Your task to perform on an android device: Show the shopping cart on amazon. Search for "usb-c" on amazon, select the first entry, and add it to the cart. Image 0: 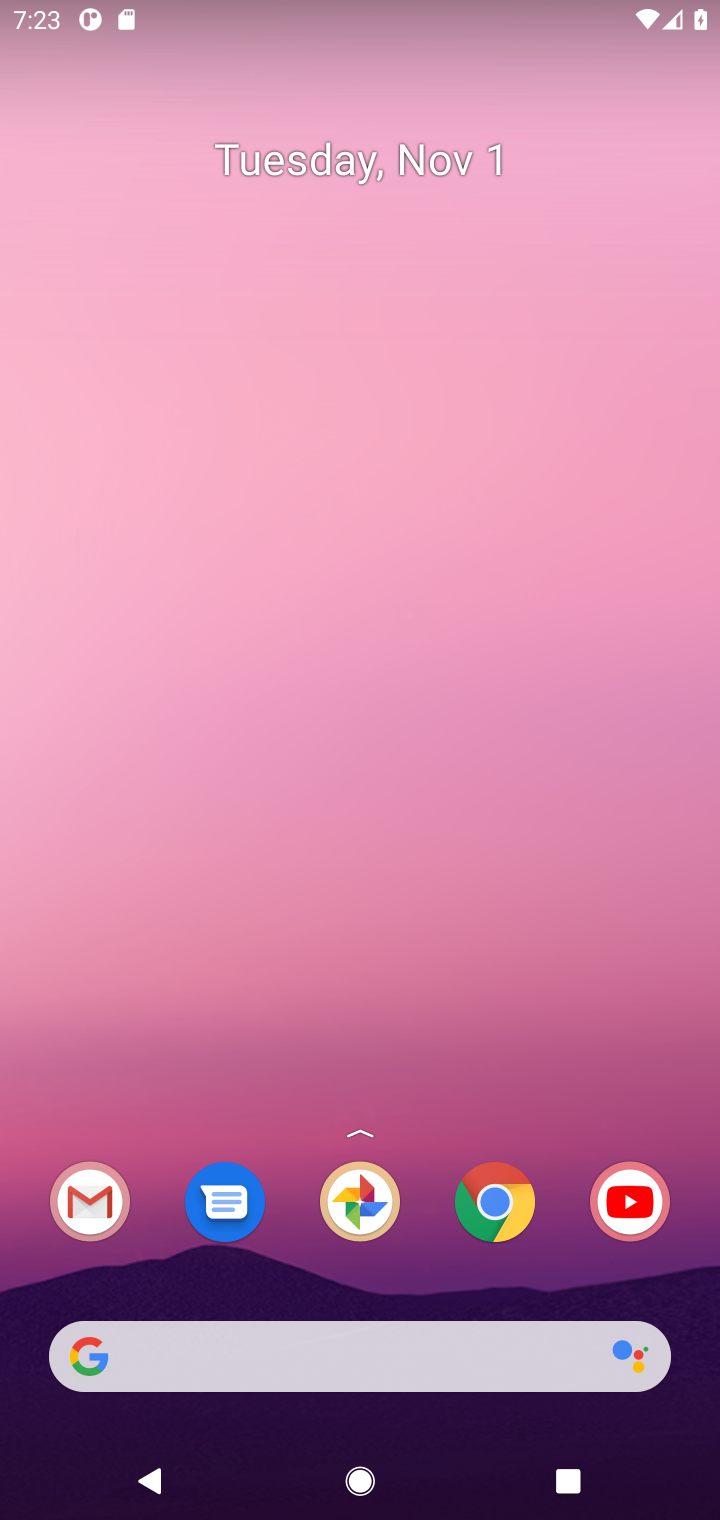
Step 0: drag from (404, 1433) to (350, 79)
Your task to perform on an android device: Show the shopping cart on amazon. Search for "usb-c" on amazon, select the first entry, and add it to the cart. Image 1: 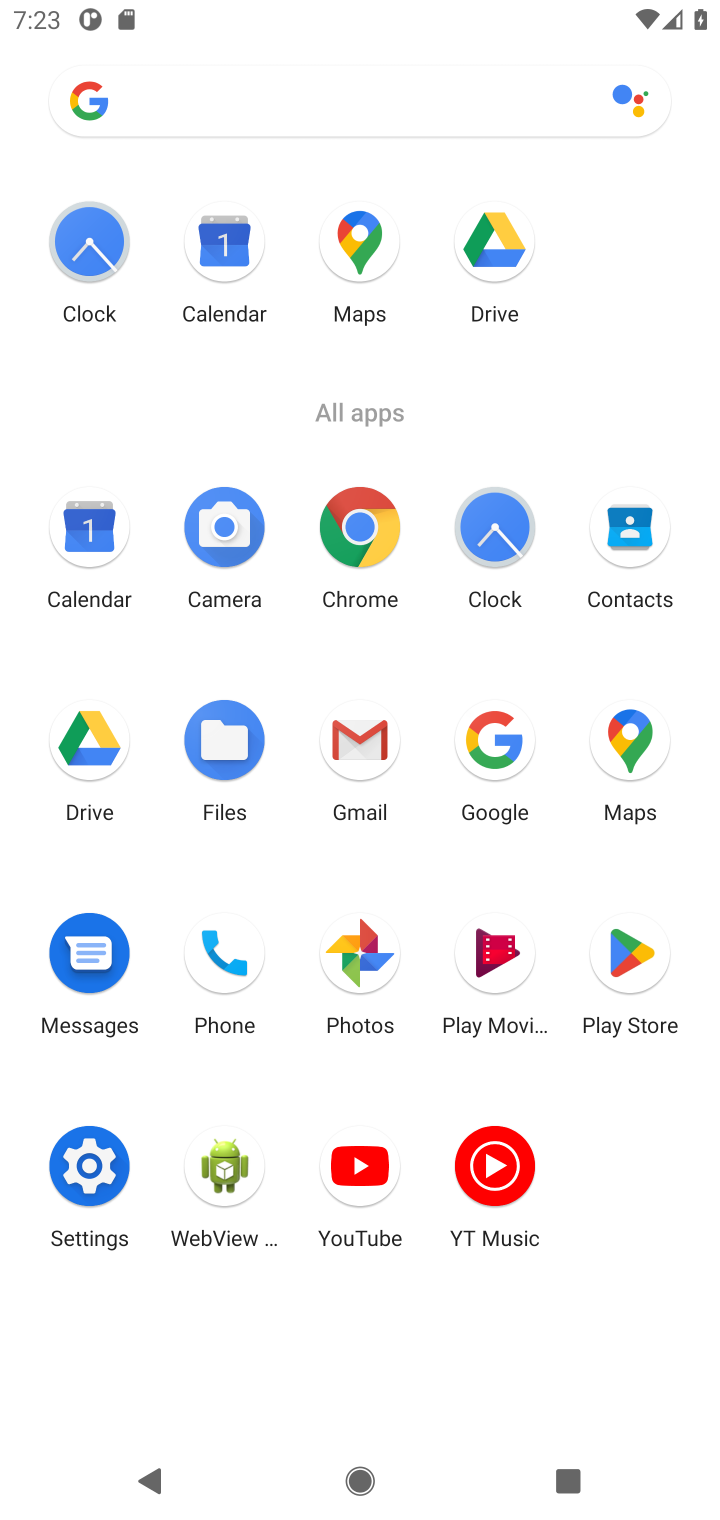
Step 1: click (347, 520)
Your task to perform on an android device: Show the shopping cart on amazon. Search for "usb-c" on amazon, select the first entry, and add it to the cart. Image 2: 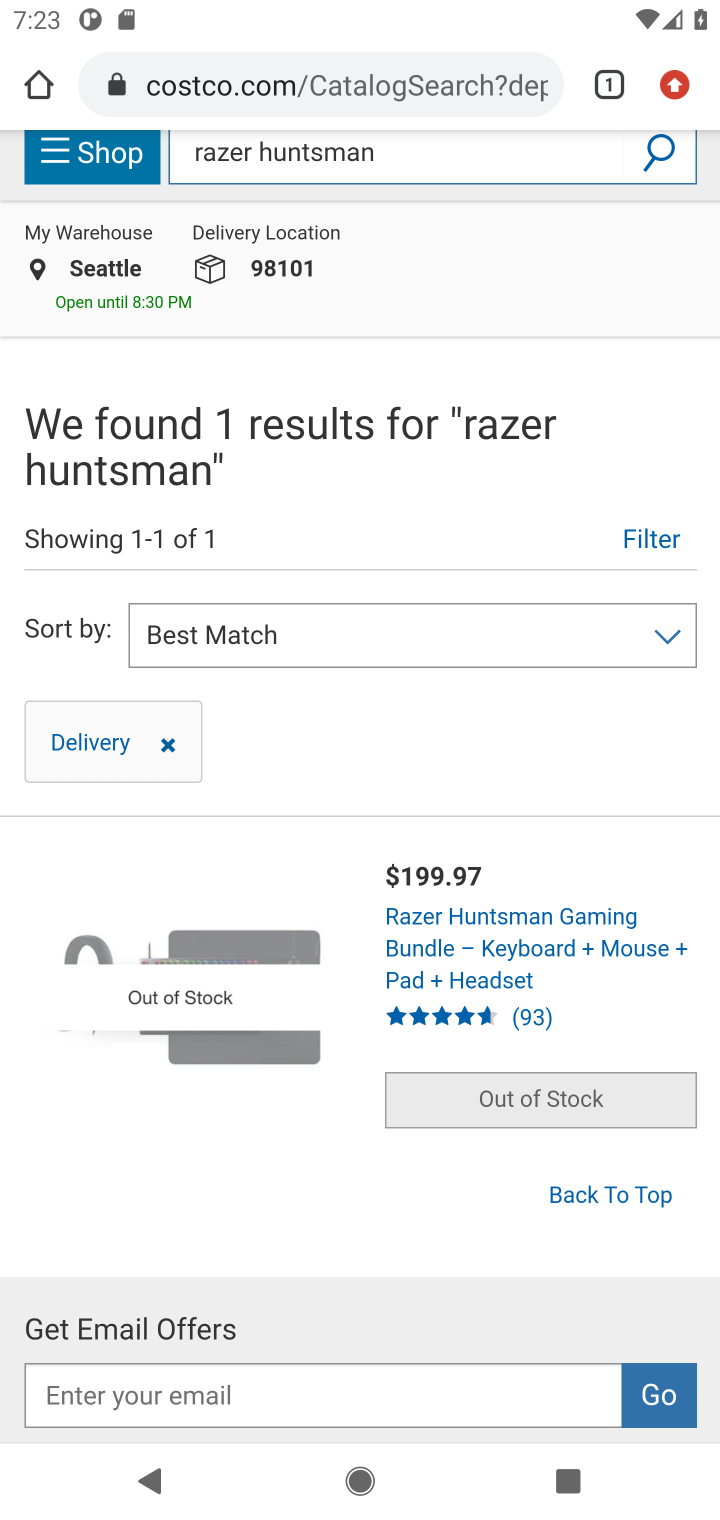
Step 2: click (275, 92)
Your task to perform on an android device: Show the shopping cart on amazon. Search for "usb-c" on amazon, select the first entry, and add it to the cart. Image 3: 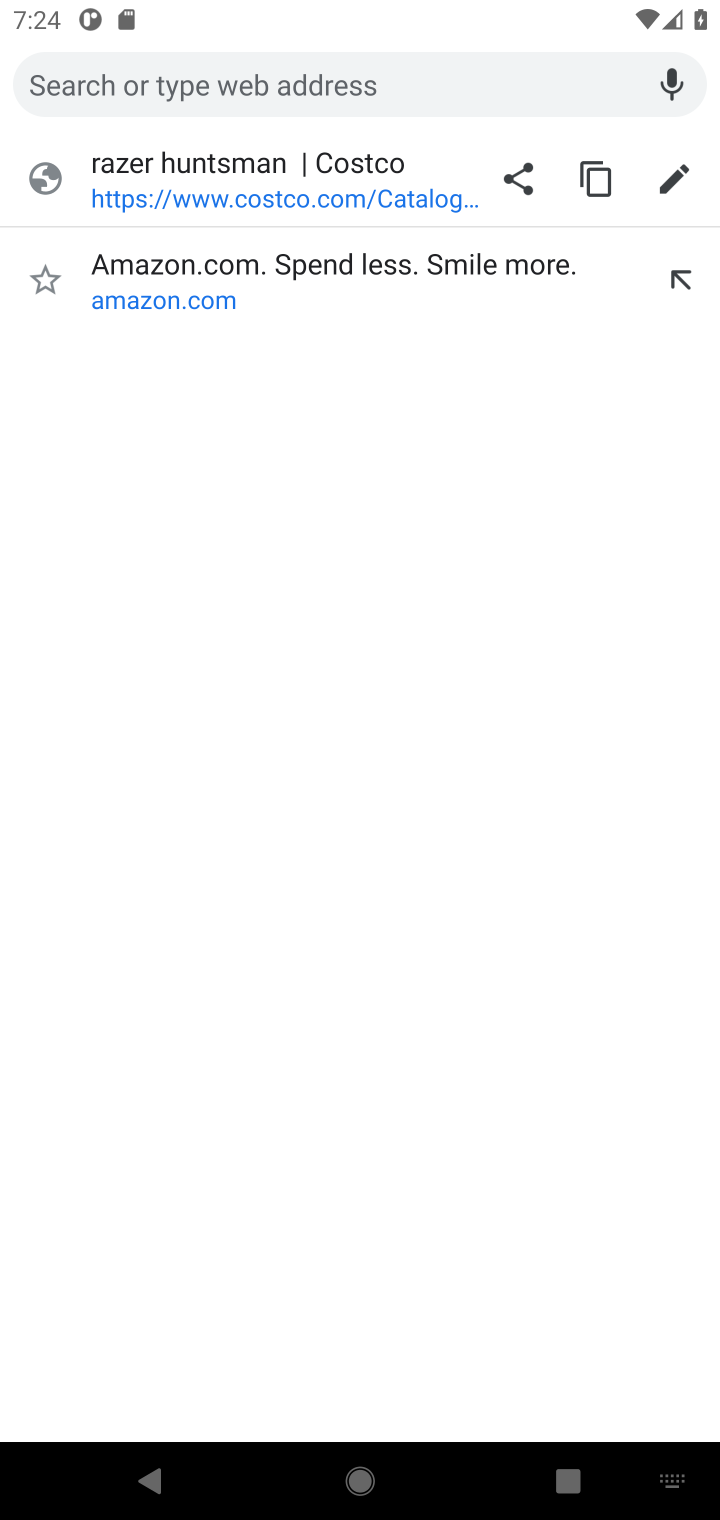
Step 3: type " amazon"
Your task to perform on an android device: Show the shopping cart on amazon. Search for "usb-c" on amazon, select the first entry, and add it to the cart. Image 4: 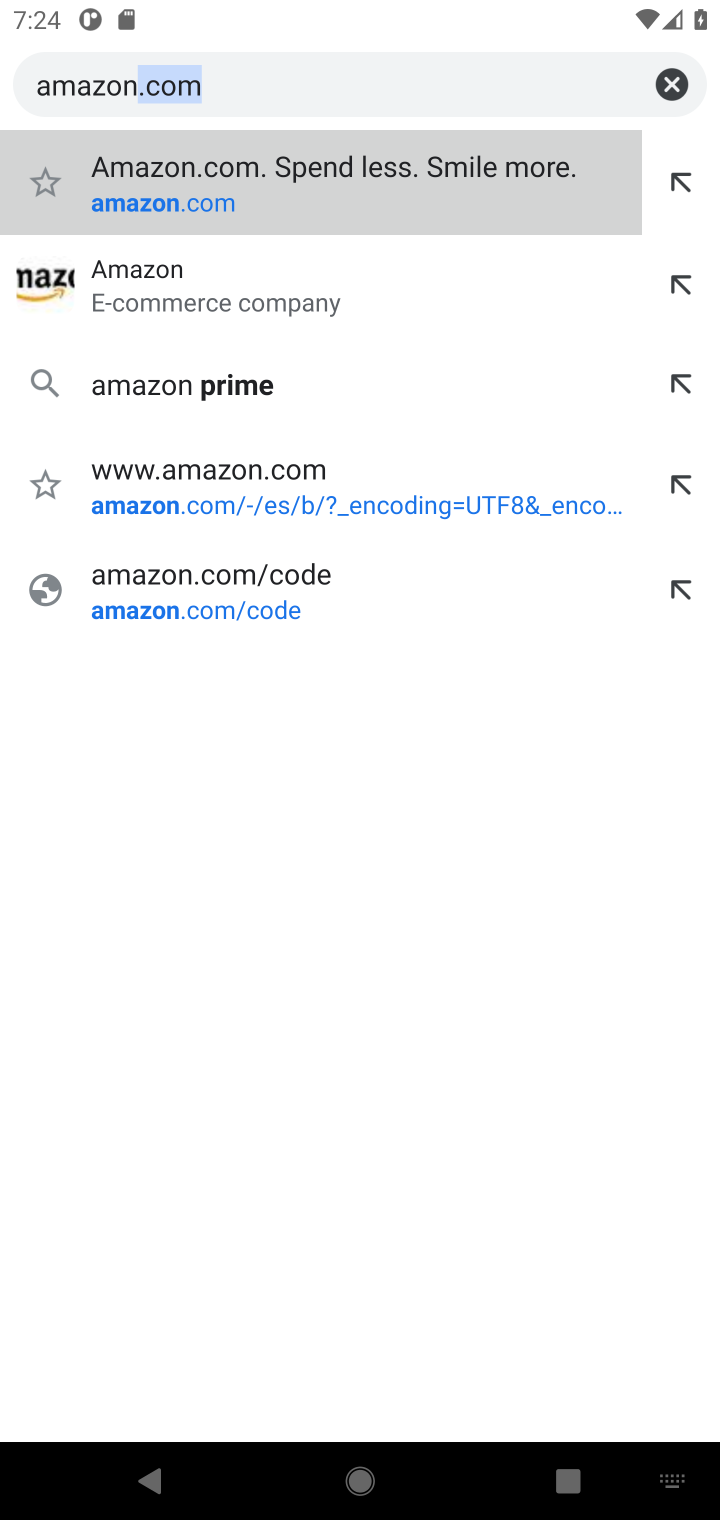
Step 4: click (150, 192)
Your task to perform on an android device: Show the shopping cart on amazon. Search for "usb-c" on amazon, select the first entry, and add it to the cart. Image 5: 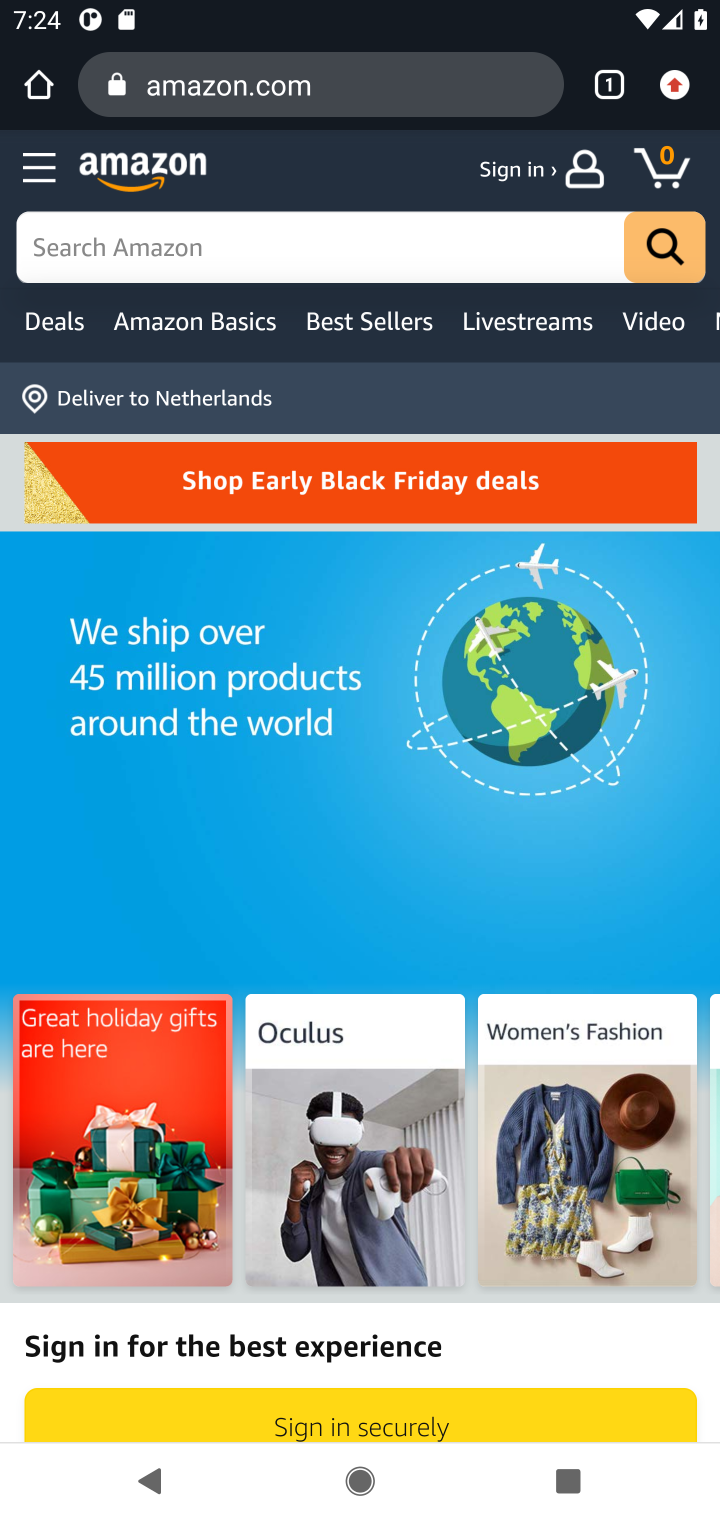
Step 5: click (158, 246)
Your task to perform on an android device: Show the shopping cart on amazon. Search for "usb-c" on amazon, select the first entry, and add it to the cart. Image 6: 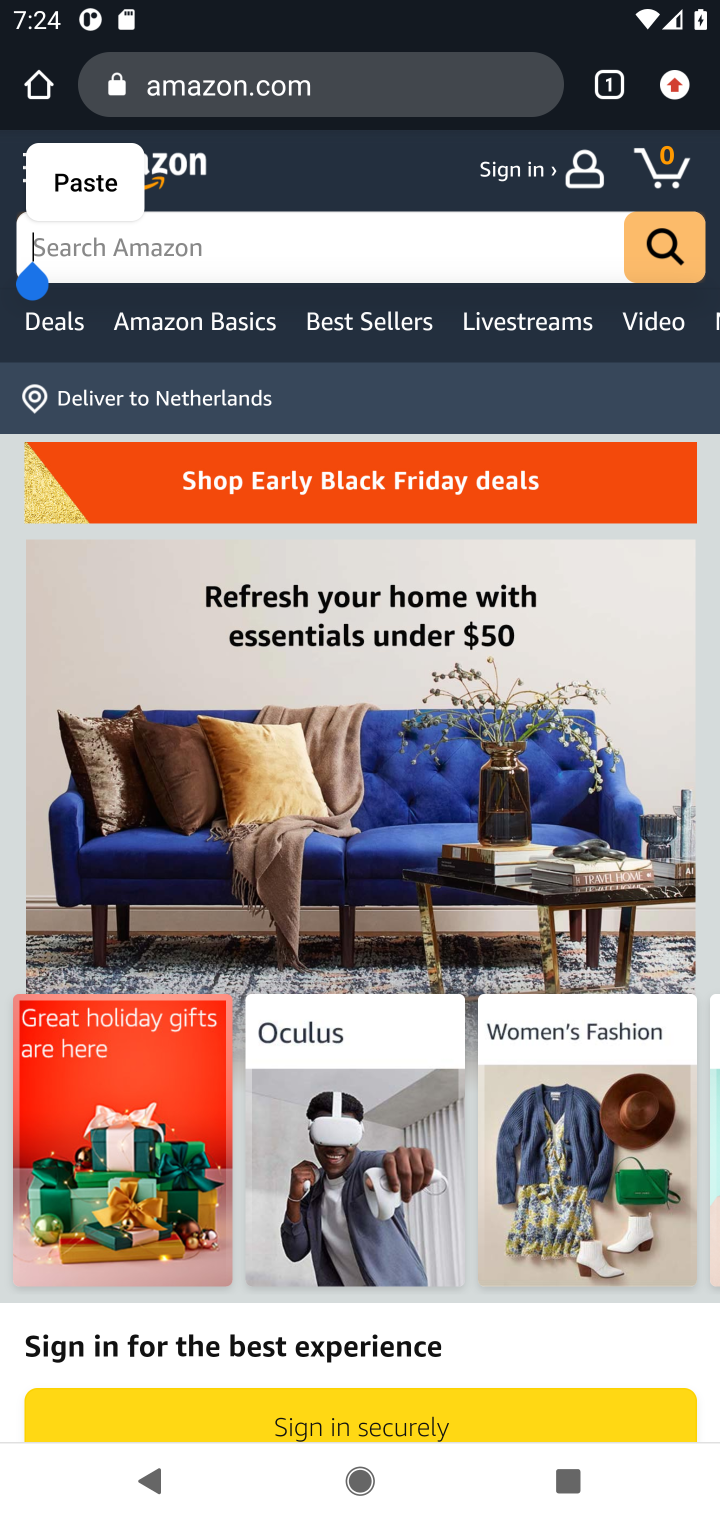
Step 6: type "usb-c"
Your task to perform on an android device: Show the shopping cart on amazon. Search for "usb-c" on amazon, select the first entry, and add it to the cart. Image 7: 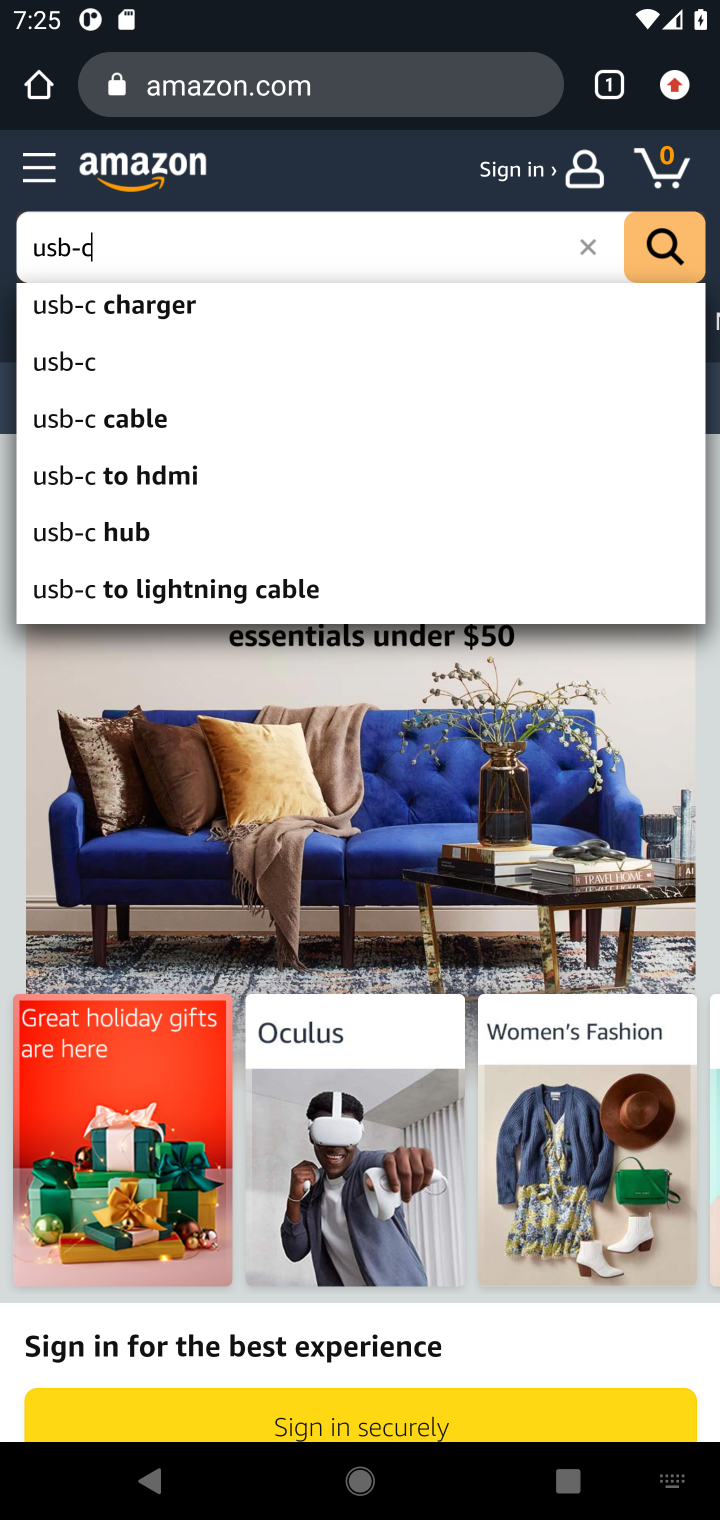
Step 7: click (658, 248)
Your task to perform on an android device: Show the shopping cart on amazon. Search for "usb-c" on amazon, select the first entry, and add it to the cart. Image 8: 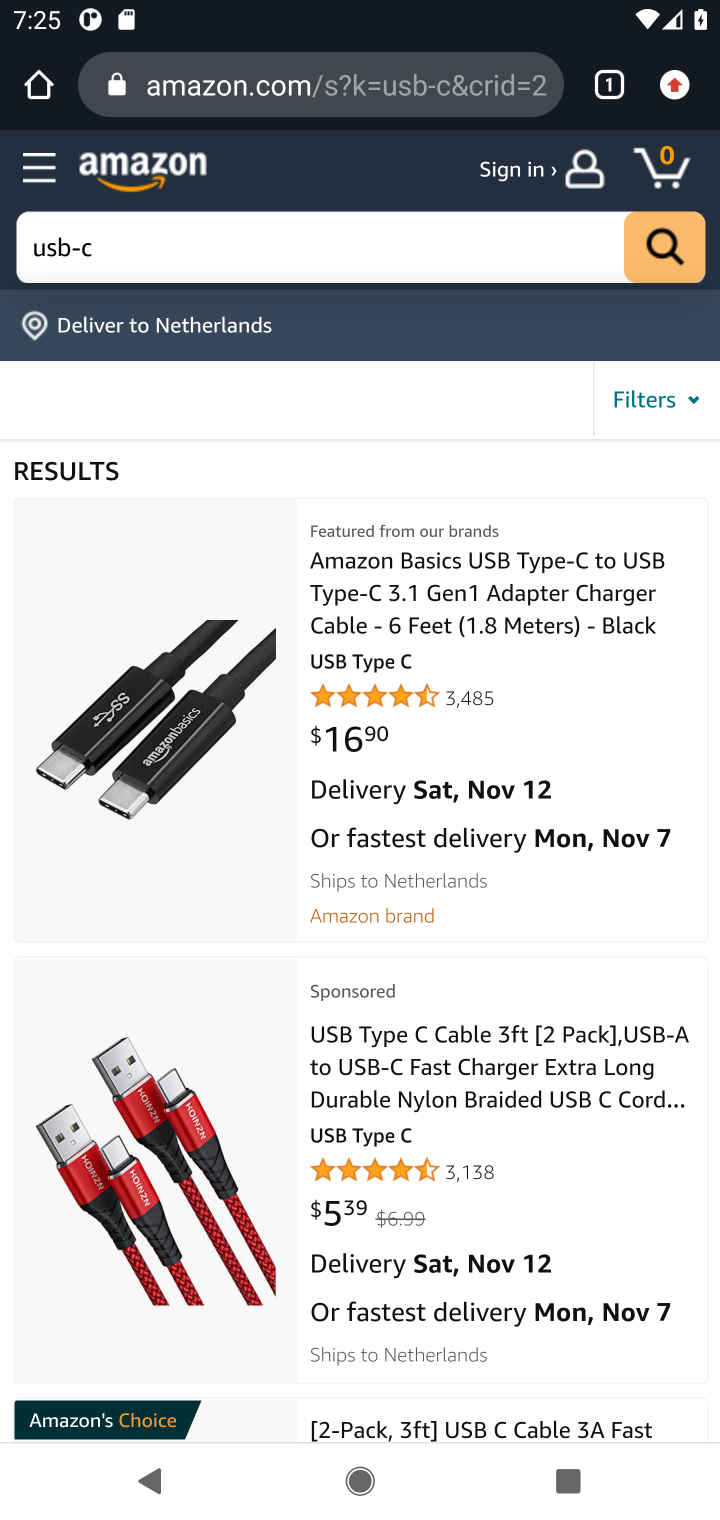
Step 8: click (102, 649)
Your task to perform on an android device: Show the shopping cart on amazon. Search for "usb-c" on amazon, select the first entry, and add it to the cart. Image 9: 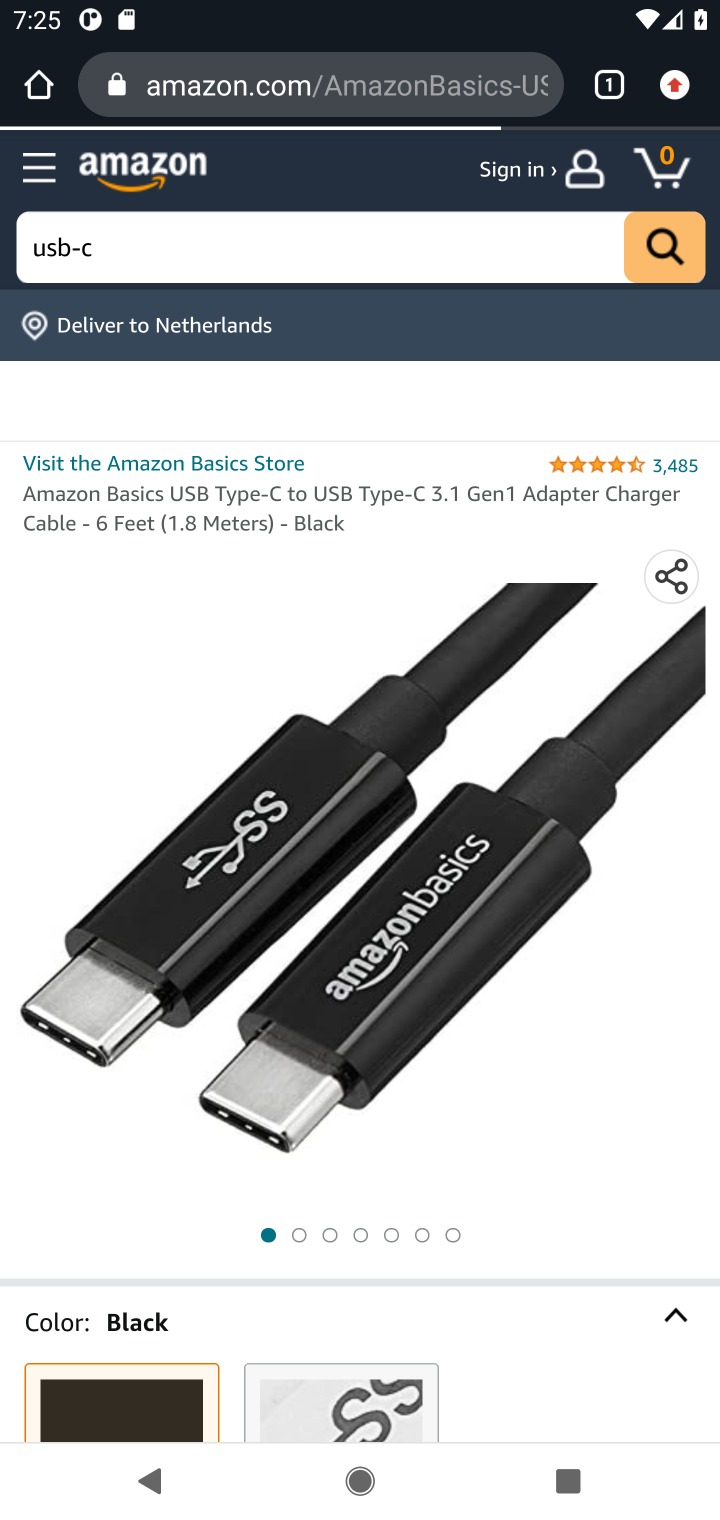
Step 9: drag from (536, 1097) to (566, 432)
Your task to perform on an android device: Show the shopping cart on amazon. Search for "usb-c" on amazon, select the first entry, and add it to the cart. Image 10: 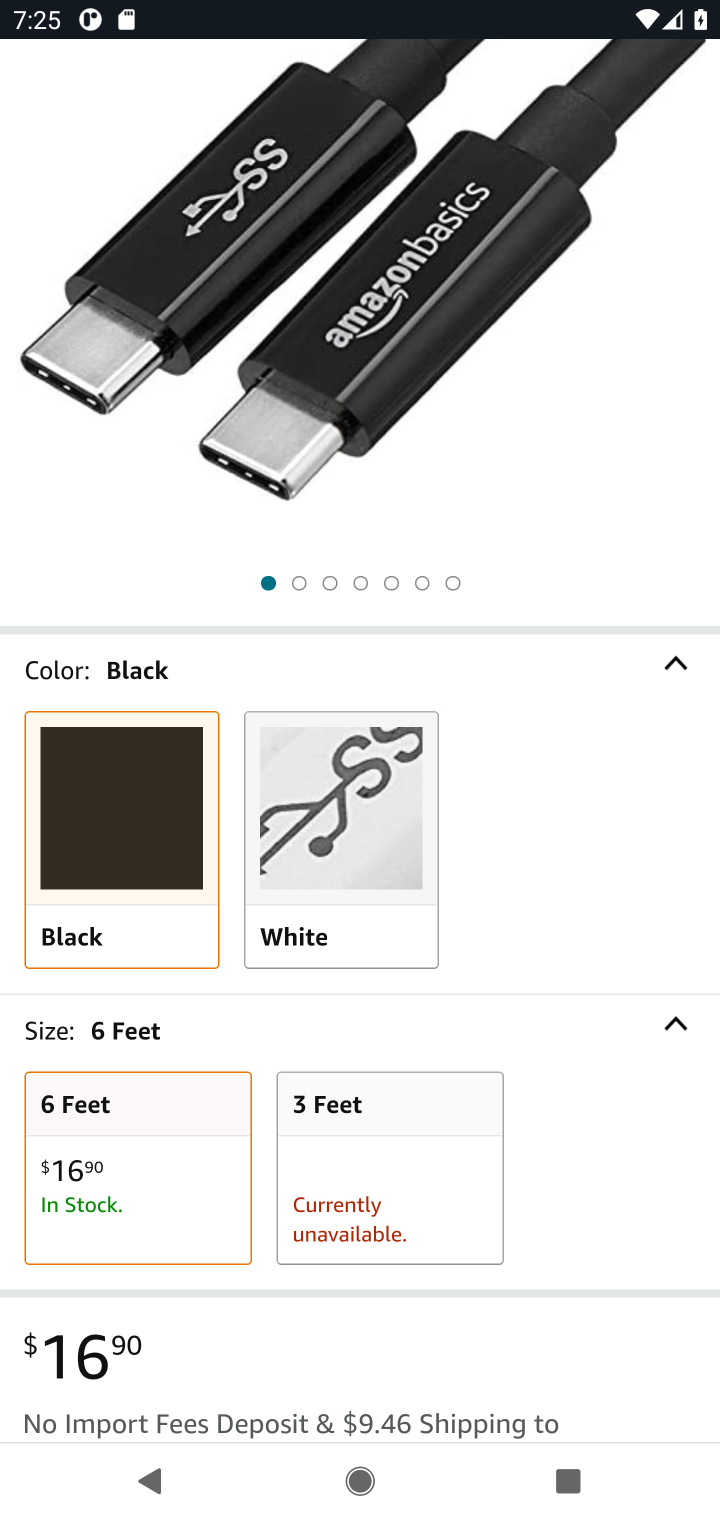
Step 10: drag from (482, 1349) to (521, 343)
Your task to perform on an android device: Show the shopping cart on amazon. Search for "usb-c" on amazon, select the first entry, and add it to the cart. Image 11: 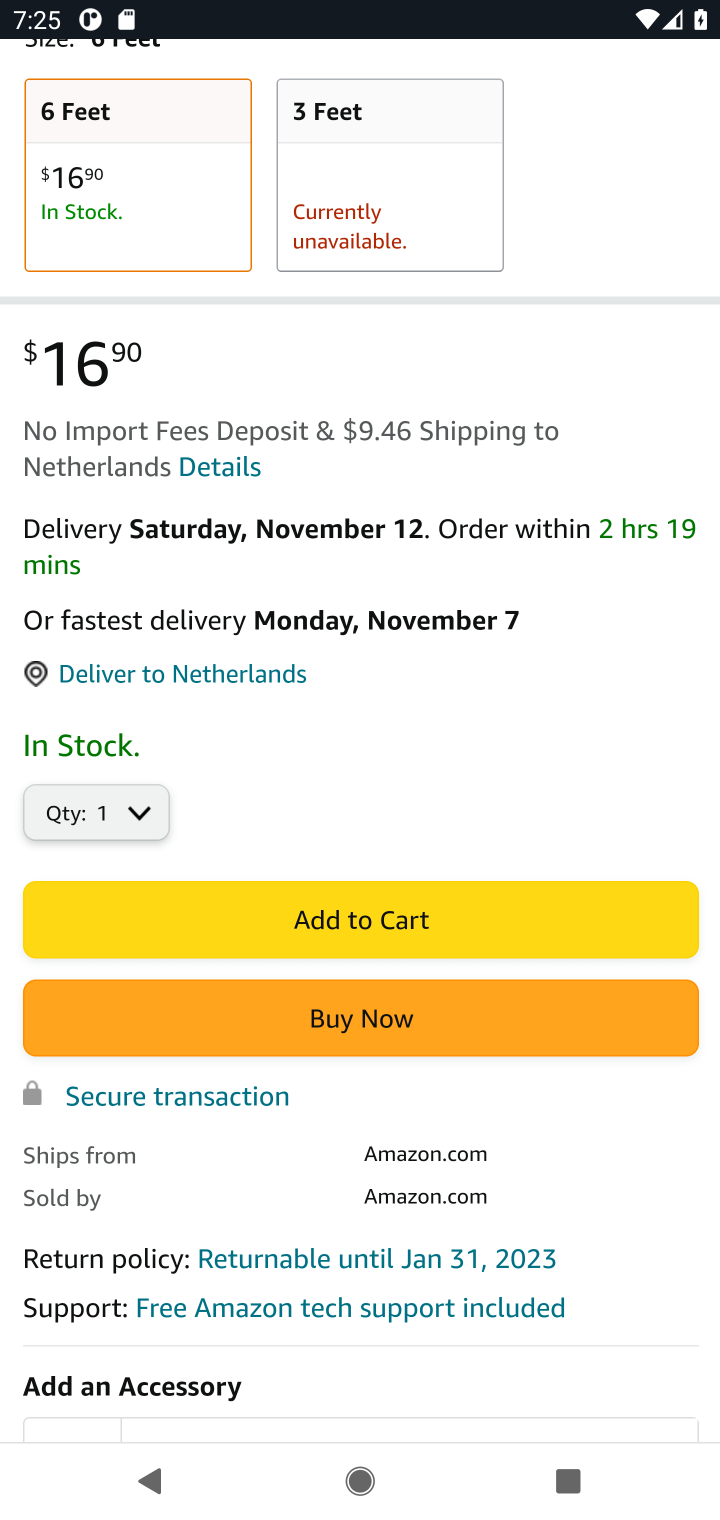
Step 11: click (337, 914)
Your task to perform on an android device: Show the shopping cart on amazon. Search for "usb-c" on amazon, select the first entry, and add it to the cart. Image 12: 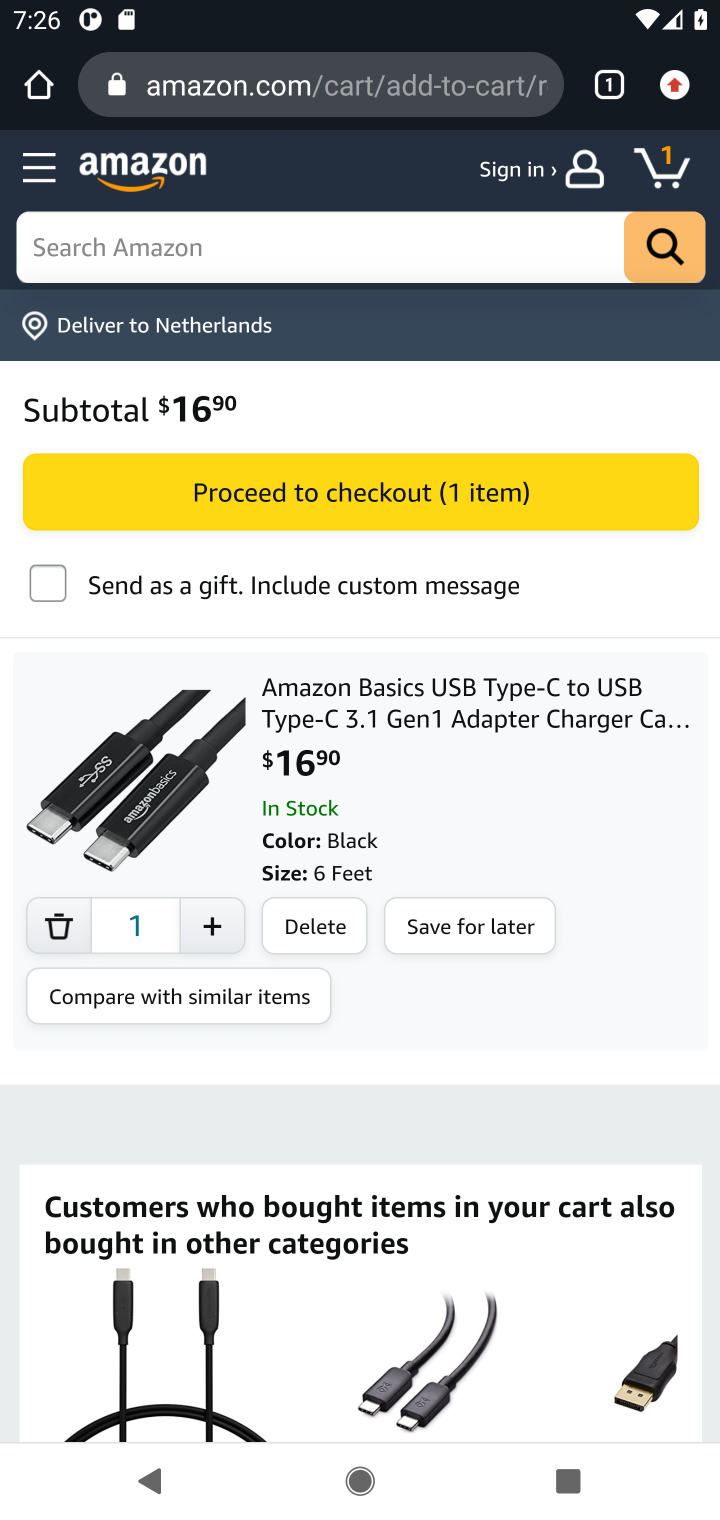
Step 12: task complete